Your task to perform on an android device: check battery use Image 0: 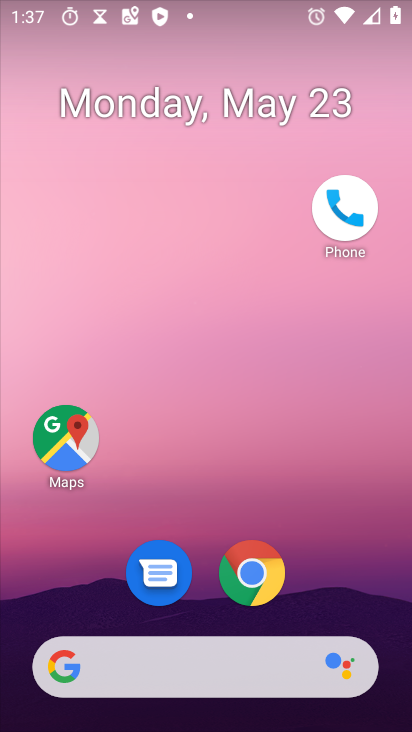
Step 0: press home button
Your task to perform on an android device: check battery use Image 1: 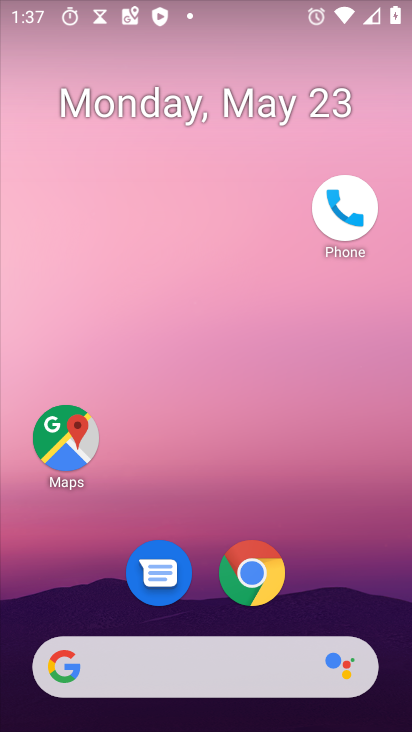
Step 1: drag from (188, 663) to (324, 16)
Your task to perform on an android device: check battery use Image 2: 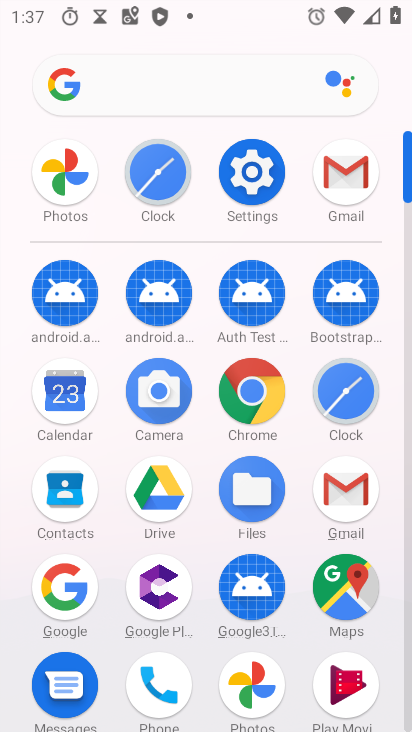
Step 2: click (262, 179)
Your task to perform on an android device: check battery use Image 3: 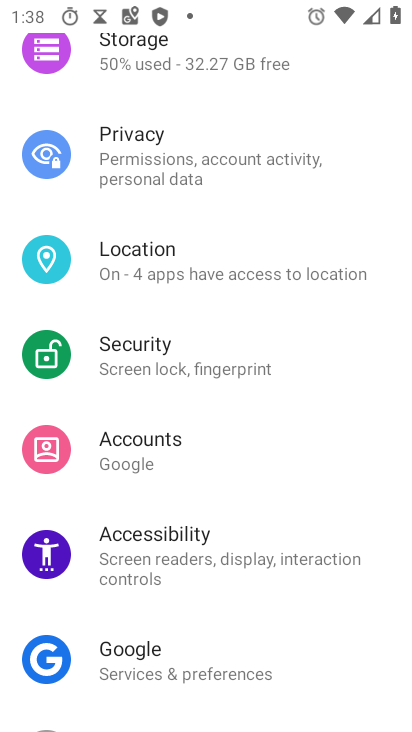
Step 3: drag from (320, 118) to (239, 613)
Your task to perform on an android device: check battery use Image 4: 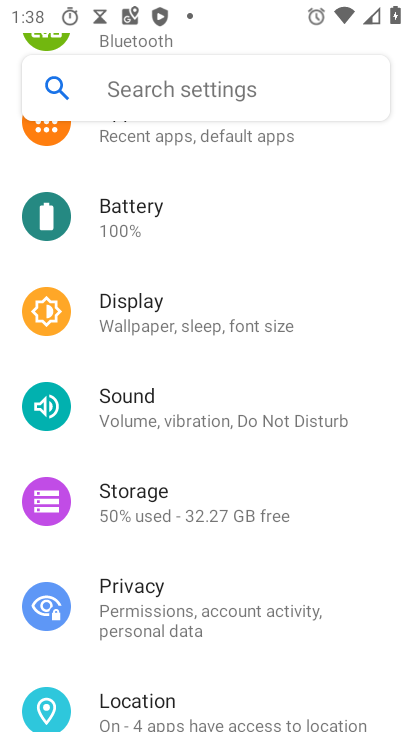
Step 4: click (139, 221)
Your task to perform on an android device: check battery use Image 5: 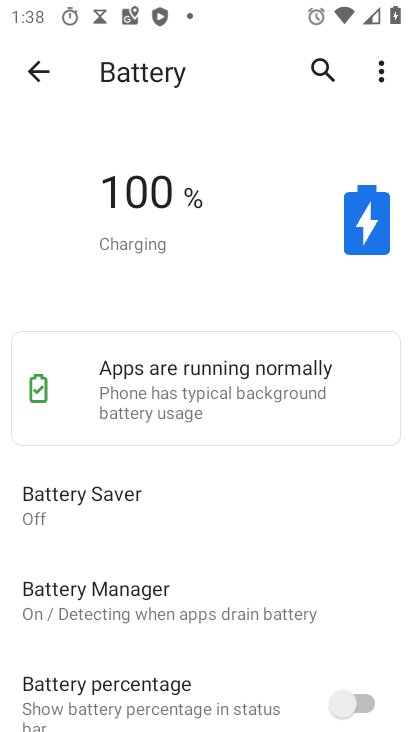
Step 5: click (385, 77)
Your task to perform on an android device: check battery use Image 6: 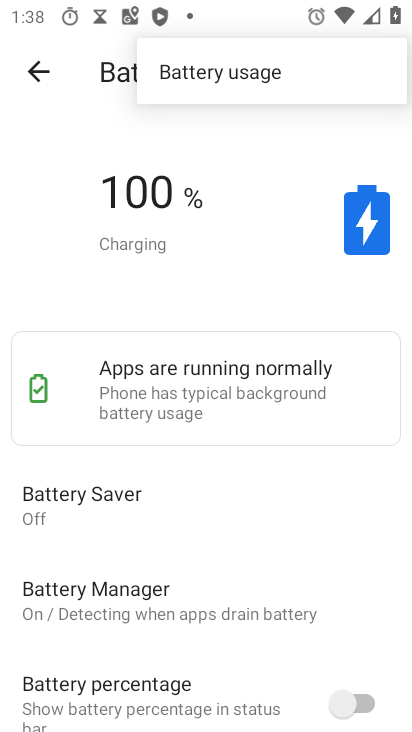
Step 6: click (240, 77)
Your task to perform on an android device: check battery use Image 7: 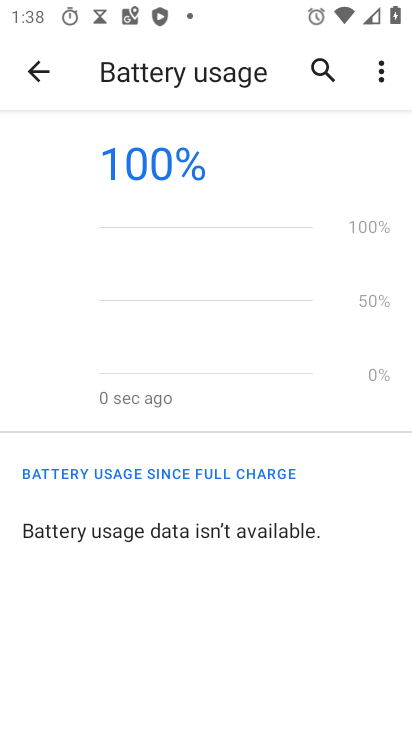
Step 7: task complete